Your task to perform on an android device: Is it going to rain today? Image 0: 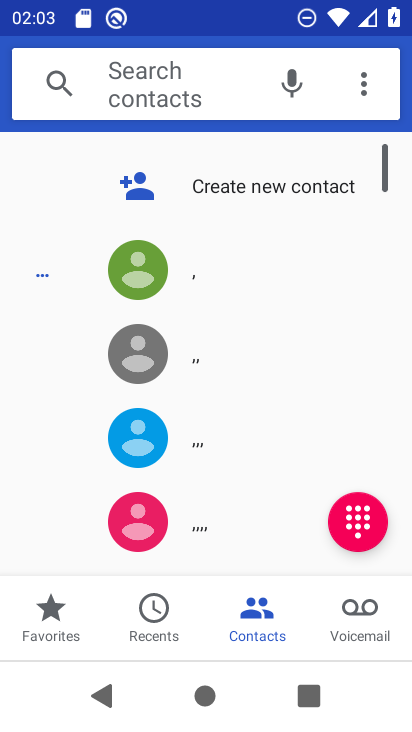
Step 0: press home button
Your task to perform on an android device: Is it going to rain today? Image 1: 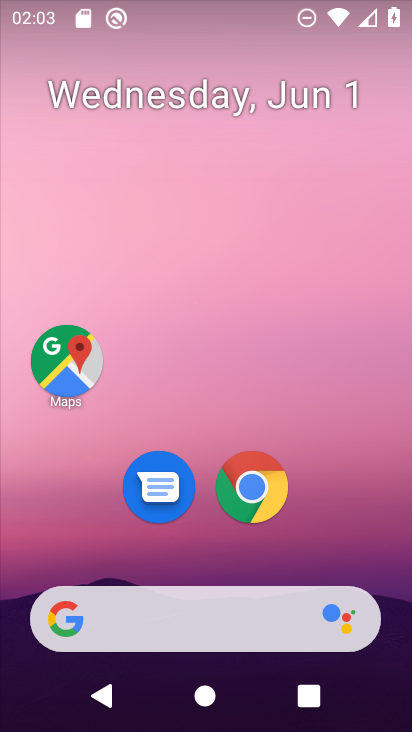
Step 1: click (230, 491)
Your task to perform on an android device: Is it going to rain today? Image 2: 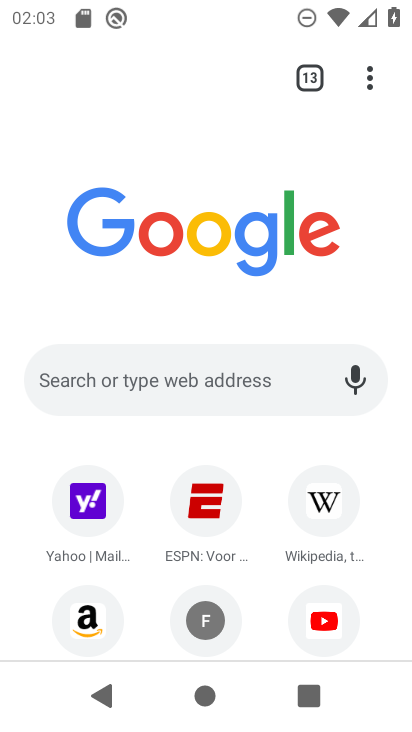
Step 2: click (188, 360)
Your task to perform on an android device: Is it going to rain today? Image 3: 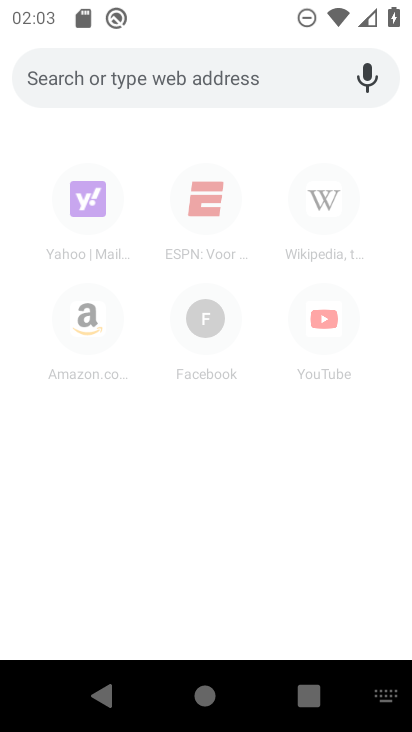
Step 3: type "Is it going to rain today?"
Your task to perform on an android device: Is it going to rain today? Image 4: 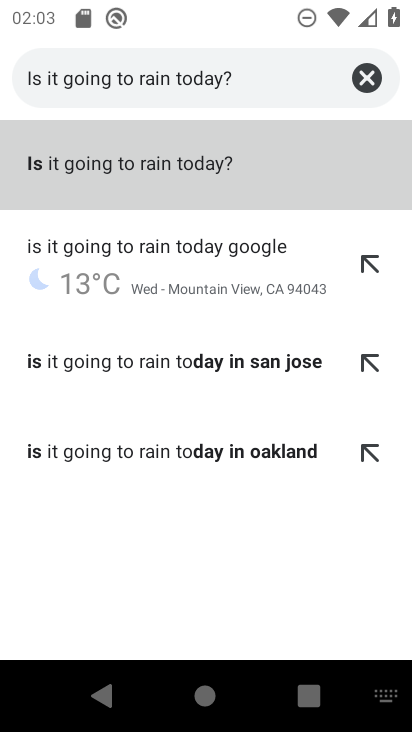
Step 4: click (249, 177)
Your task to perform on an android device: Is it going to rain today? Image 5: 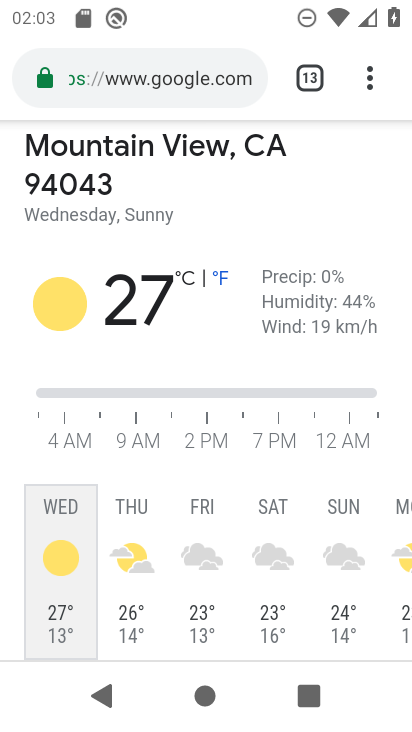
Step 5: task complete